Your task to perform on an android device: open device folders in google photos Image 0: 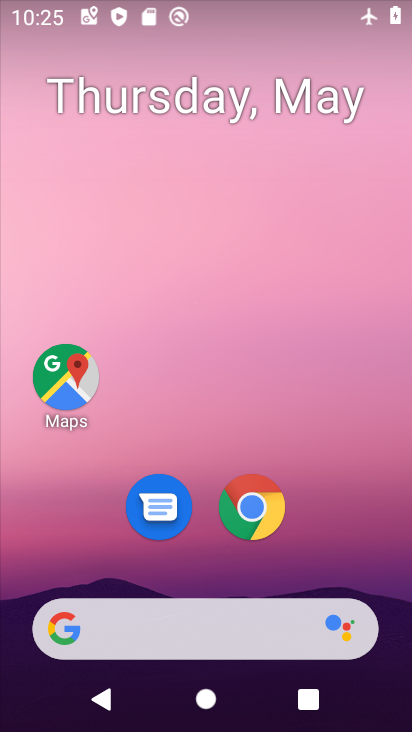
Step 0: drag from (272, 634) to (277, 59)
Your task to perform on an android device: open device folders in google photos Image 1: 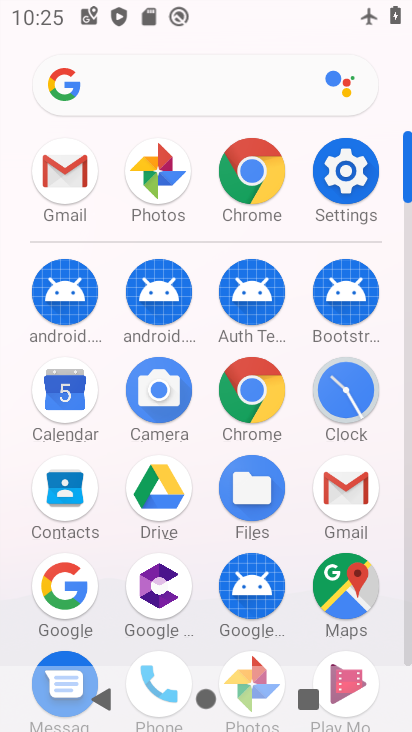
Step 1: drag from (244, 491) to (243, 124)
Your task to perform on an android device: open device folders in google photos Image 2: 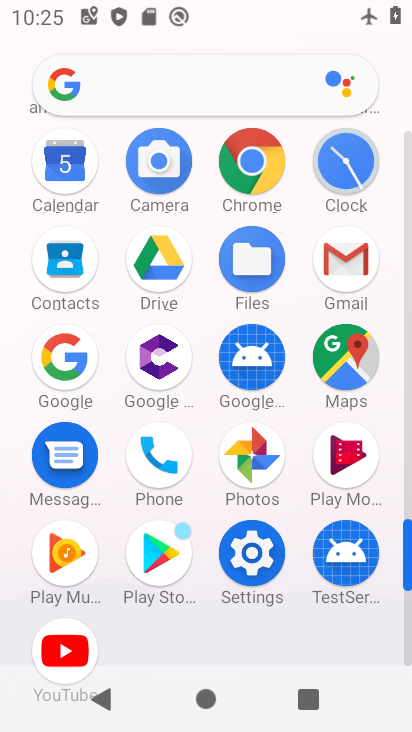
Step 2: click (259, 478)
Your task to perform on an android device: open device folders in google photos Image 3: 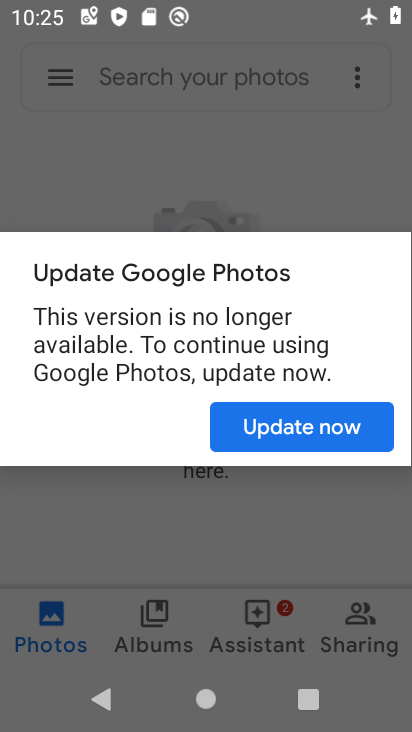
Step 3: press home button
Your task to perform on an android device: open device folders in google photos Image 4: 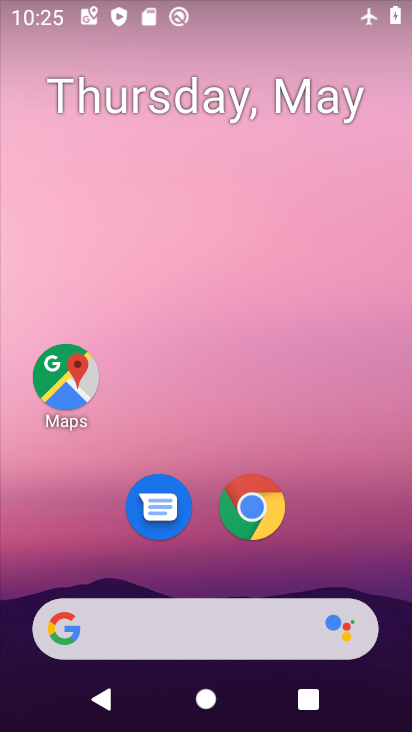
Step 4: drag from (236, 618) to (297, 110)
Your task to perform on an android device: open device folders in google photos Image 5: 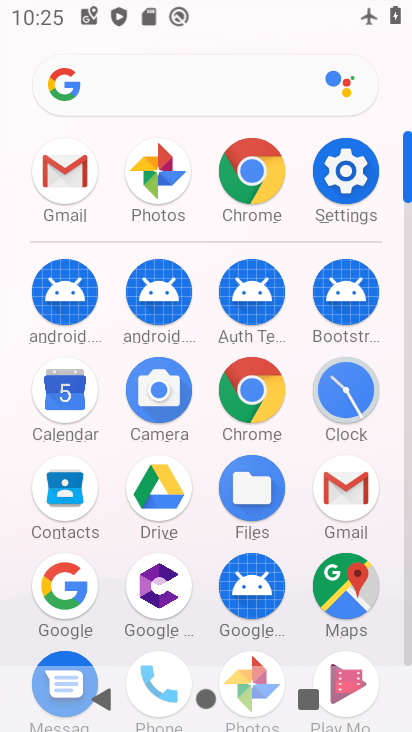
Step 5: drag from (247, 495) to (253, 315)
Your task to perform on an android device: open device folders in google photos Image 6: 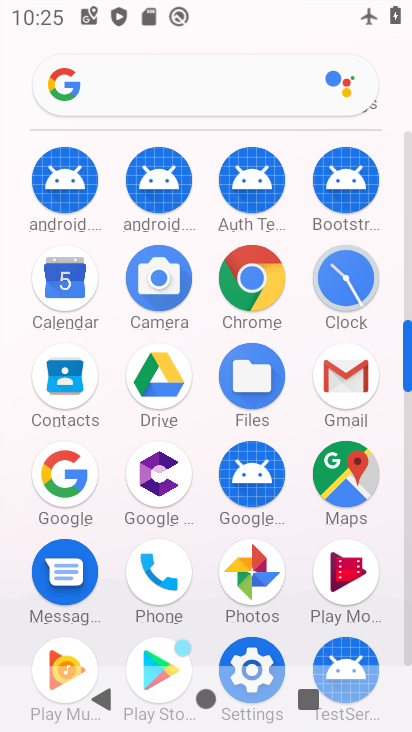
Step 6: click (274, 185)
Your task to perform on an android device: open device folders in google photos Image 7: 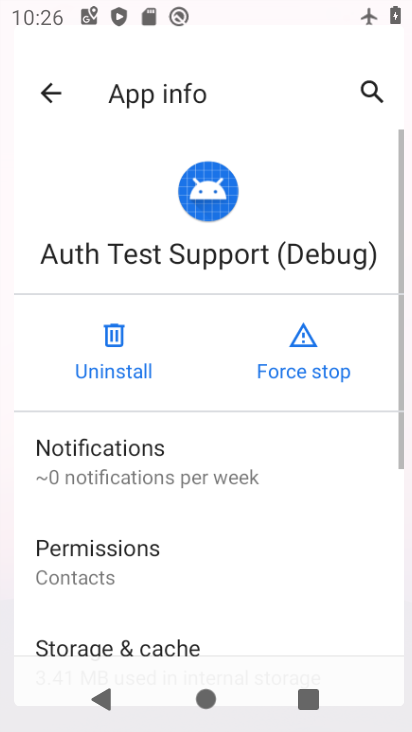
Step 7: click (253, 590)
Your task to perform on an android device: open device folders in google photos Image 8: 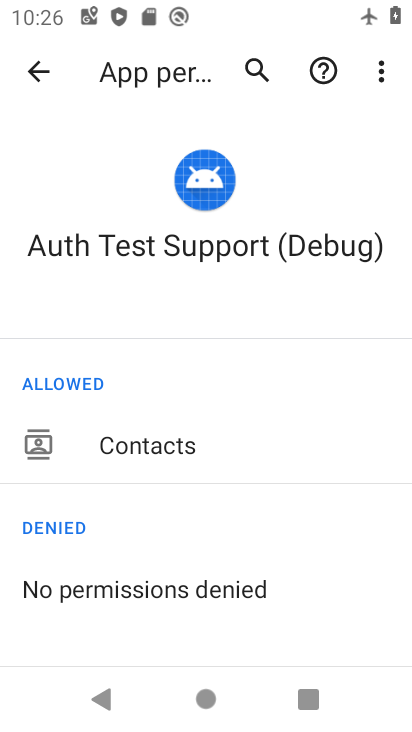
Step 8: click (49, 79)
Your task to perform on an android device: open device folders in google photos Image 9: 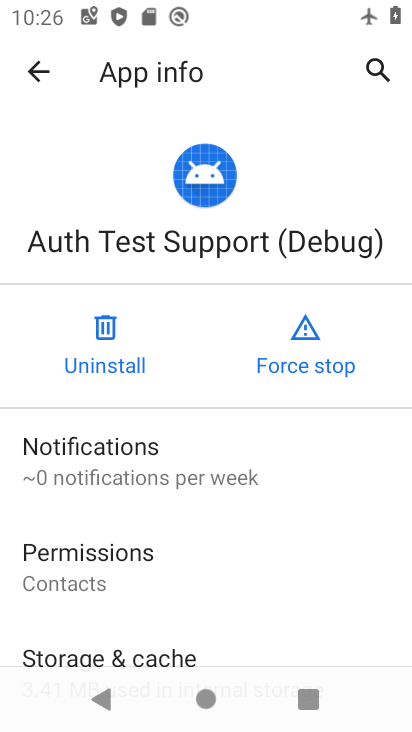
Step 9: drag from (162, 565) to (209, 93)
Your task to perform on an android device: open device folders in google photos Image 10: 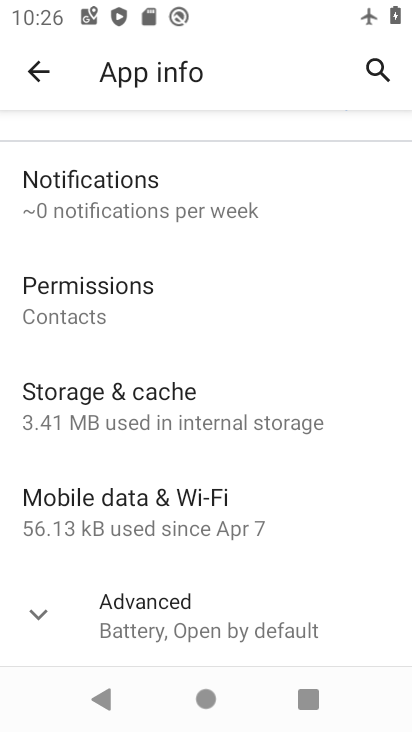
Step 10: drag from (241, 451) to (255, 202)
Your task to perform on an android device: open device folders in google photos Image 11: 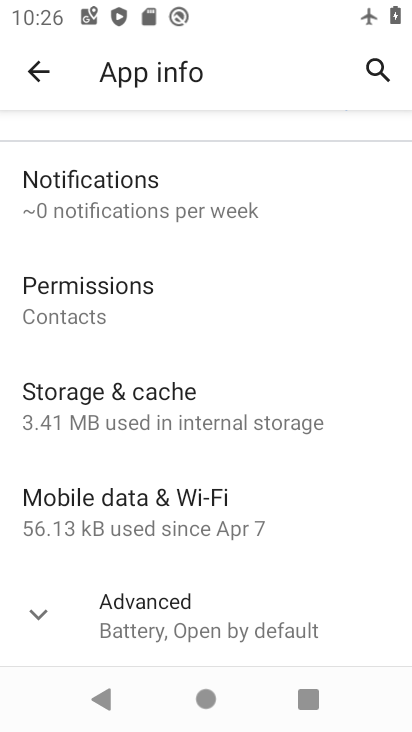
Step 11: click (31, 76)
Your task to perform on an android device: open device folders in google photos Image 12: 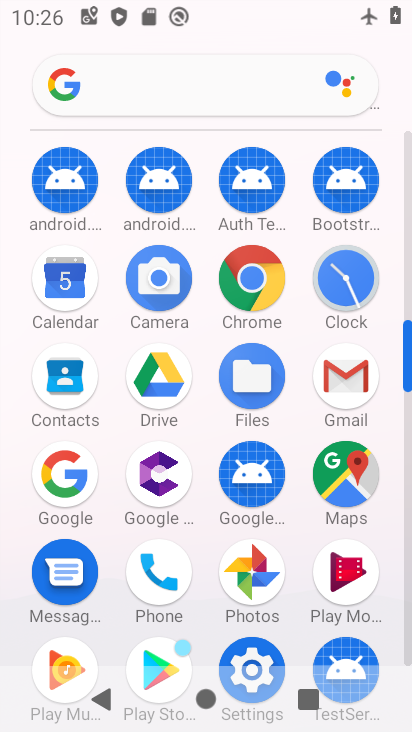
Step 12: task complete